Your task to perform on an android device: toggle priority inbox in the gmail app Image 0: 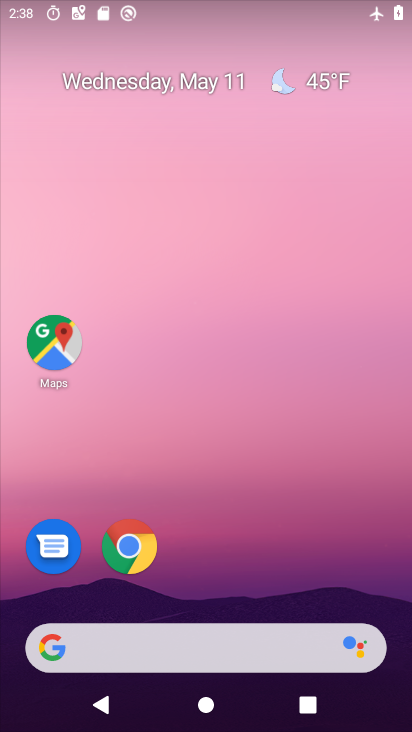
Step 0: drag from (222, 580) to (251, 46)
Your task to perform on an android device: toggle priority inbox in the gmail app Image 1: 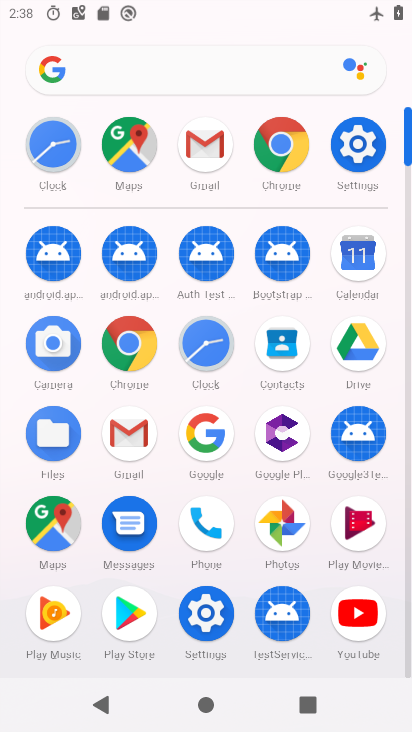
Step 1: click (132, 453)
Your task to perform on an android device: toggle priority inbox in the gmail app Image 2: 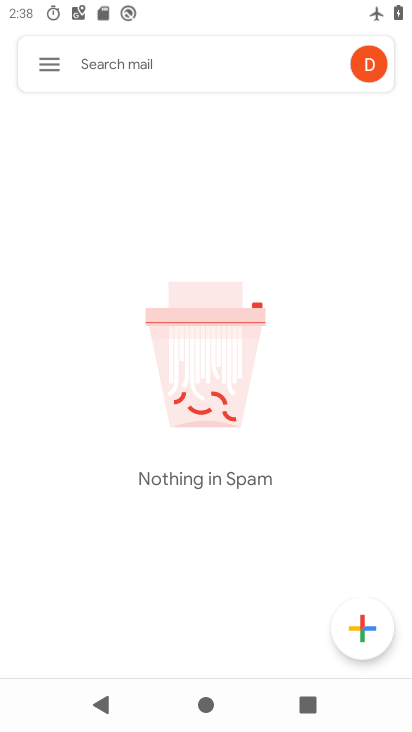
Step 2: click (39, 69)
Your task to perform on an android device: toggle priority inbox in the gmail app Image 3: 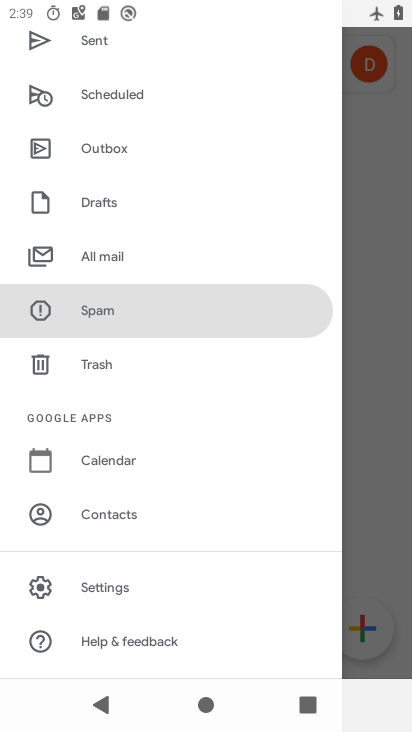
Step 3: click (100, 592)
Your task to perform on an android device: toggle priority inbox in the gmail app Image 4: 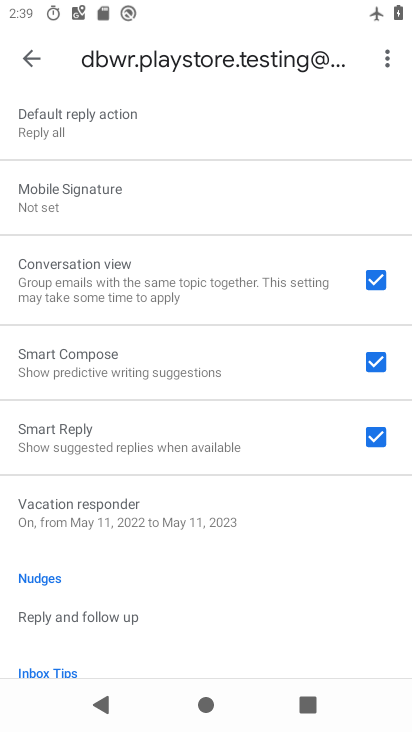
Step 4: drag from (125, 174) to (160, 591)
Your task to perform on an android device: toggle priority inbox in the gmail app Image 5: 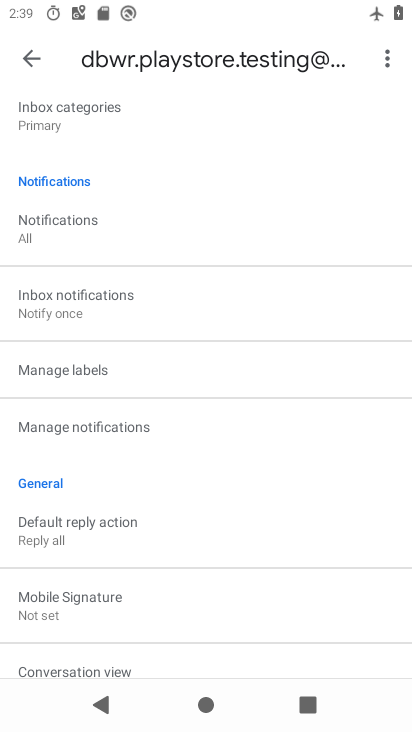
Step 5: drag from (134, 244) to (145, 640)
Your task to perform on an android device: toggle priority inbox in the gmail app Image 6: 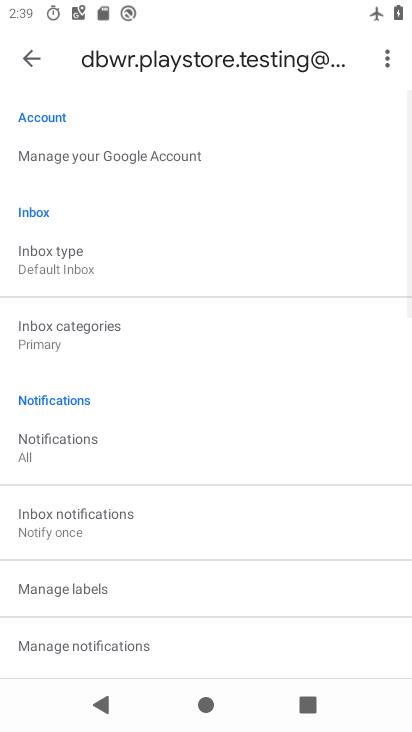
Step 6: click (85, 331)
Your task to perform on an android device: toggle priority inbox in the gmail app Image 7: 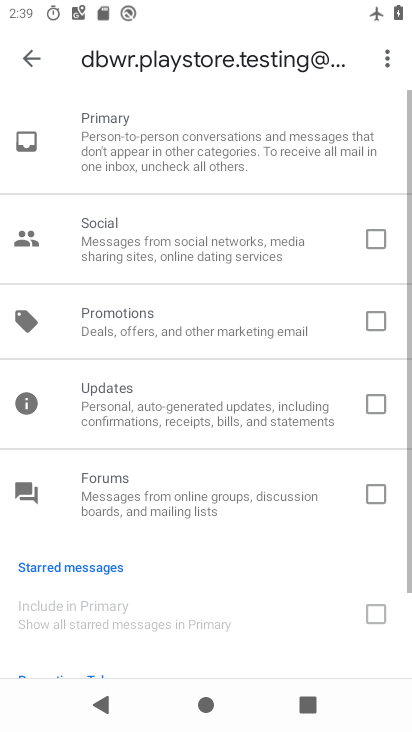
Step 7: click (28, 46)
Your task to perform on an android device: toggle priority inbox in the gmail app Image 8: 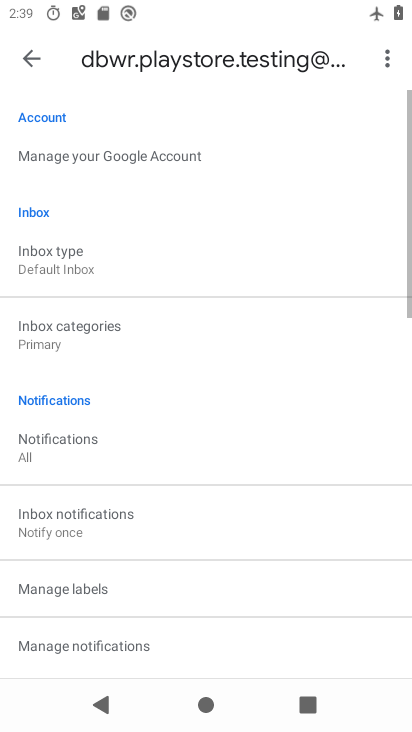
Step 8: click (70, 276)
Your task to perform on an android device: toggle priority inbox in the gmail app Image 9: 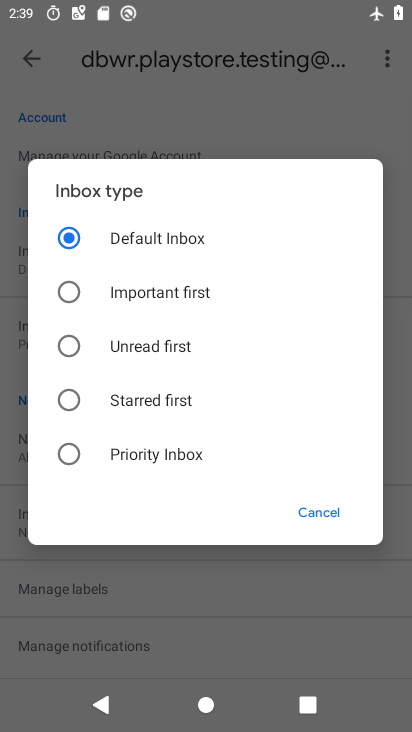
Step 9: click (85, 448)
Your task to perform on an android device: toggle priority inbox in the gmail app Image 10: 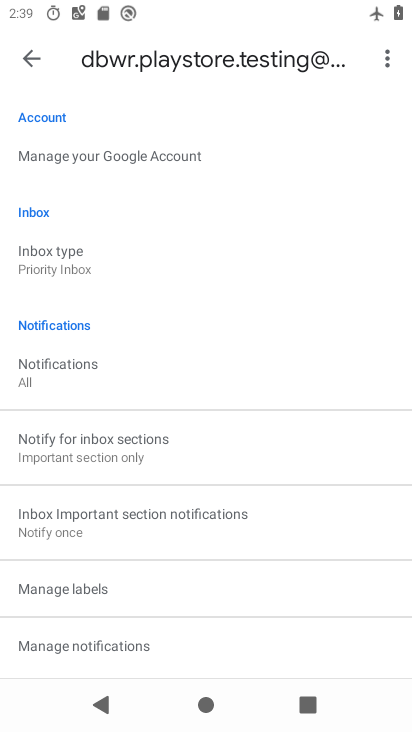
Step 10: task complete